Your task to perform on an android device: Open Google Image 0: 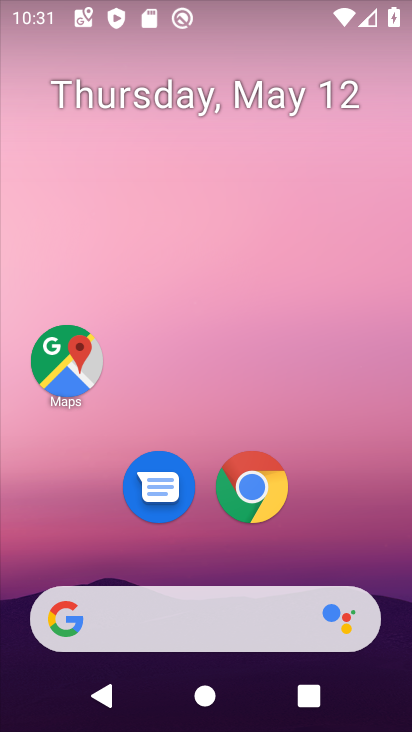
Step 0: click (48, 357)
Your task to perform on an android device: Open Google Image 1: 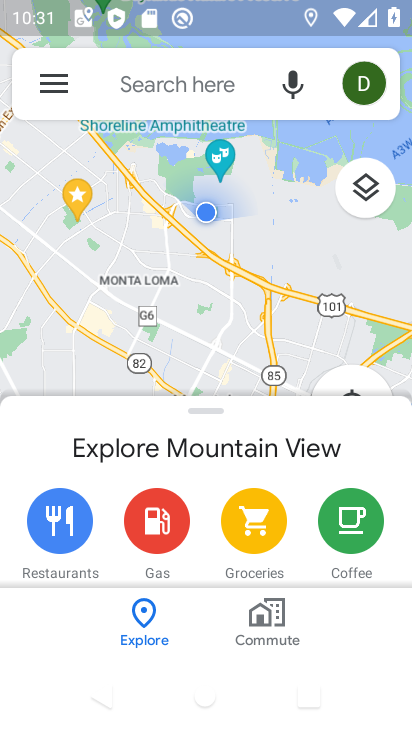
Step 1: task complete